Your task to perform on an android device: Open the calendar app, open the side menu, and click the "Day" option Image 0: 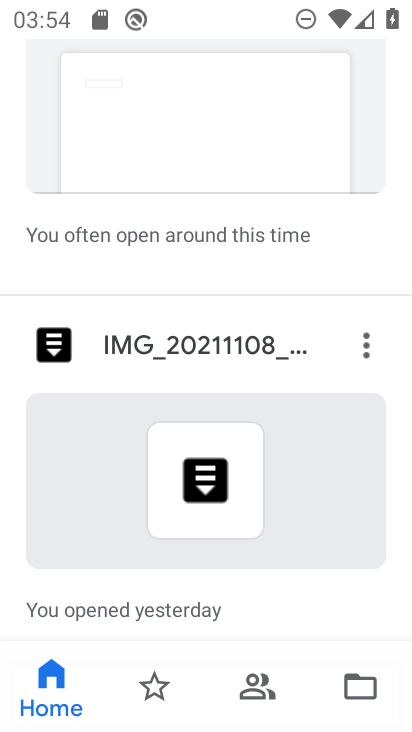
Step 0: press home button
Your task to perform on an android device: Open the calendar app, open the side menu, and click the "Day" option Image 1: 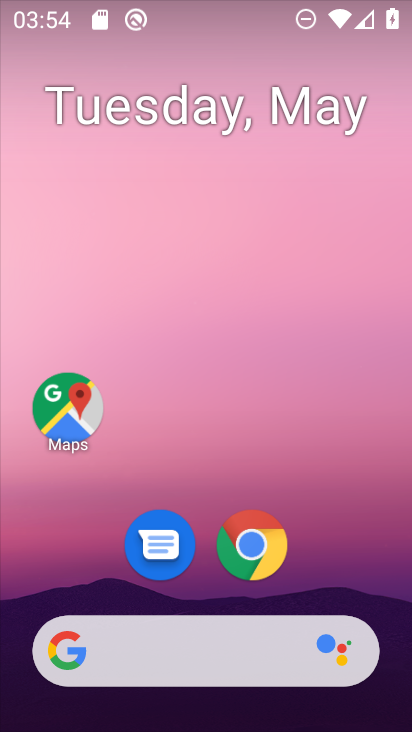
Step 1: drag from (393, 625) to (339, 22)
Your task to perform on an android device: Open the calendar app, open the side menu, and click the "Day" option Image 2: 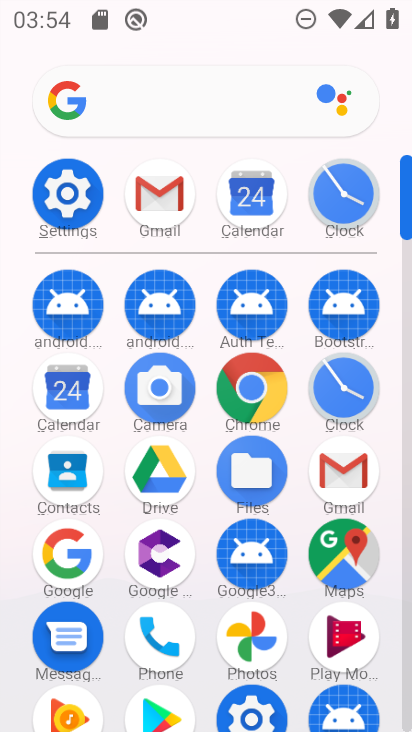
Step 2: click (66, 391)
Your task to perform on an android device: Open the calendar app, open the side menu, and click the "Day" option Image 3: 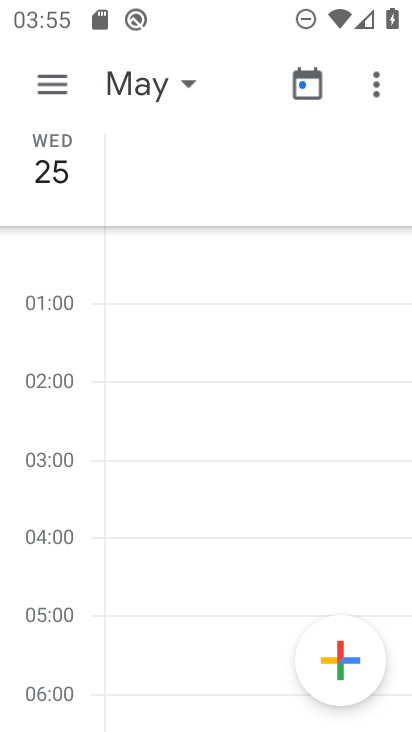
Step 3: click (54, 87)
Your task to perform on an android device: Open the calendar app, open the side menu, and click the "Day" option Image 4: 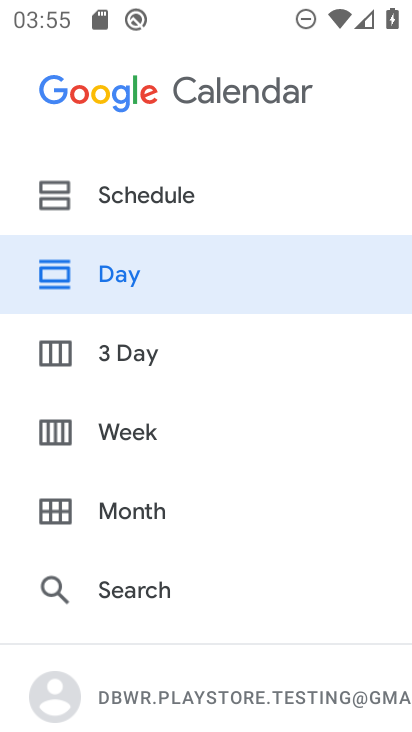
Step 4: task complete